Your task to perform on an android device: Open settings on Google Maps Image 0: 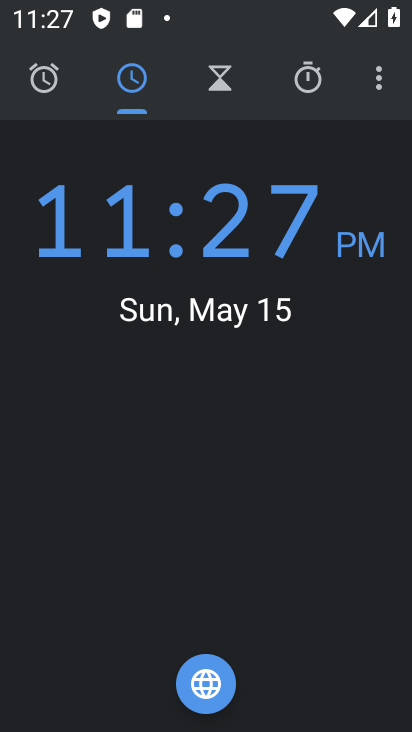
Step 0: press home button
Your task to perform on an android device: Open settings on Google Maps Image 1: 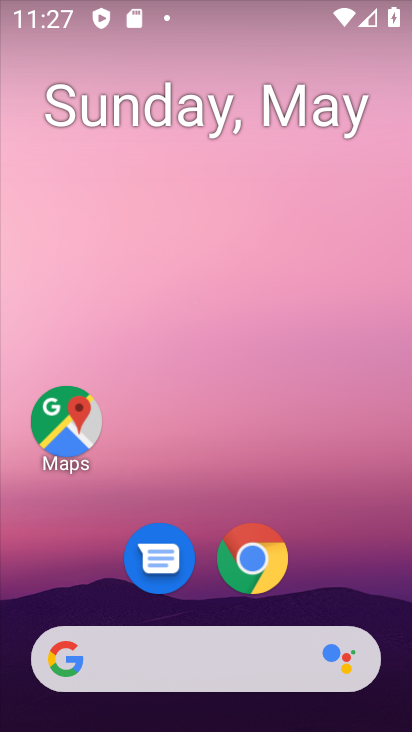
Step 1: drag from (378, 603) to (375, 188)
Your task to perform on an android device: Open settings on Google Maps Image 2: 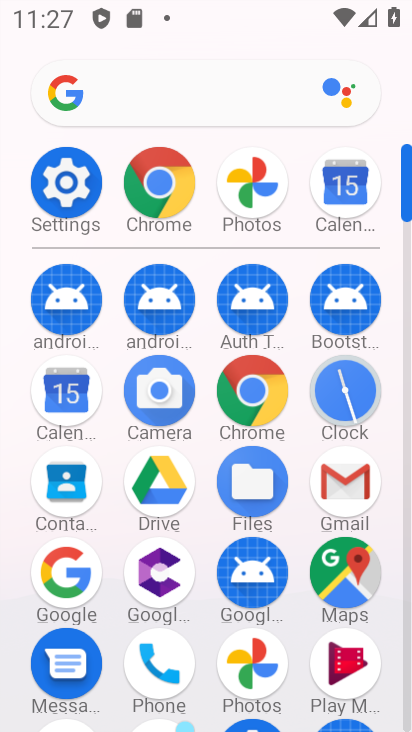
Step 2: click (363, 571)
Your task to perform on an android device: Open settings on Google Maps Image 3: 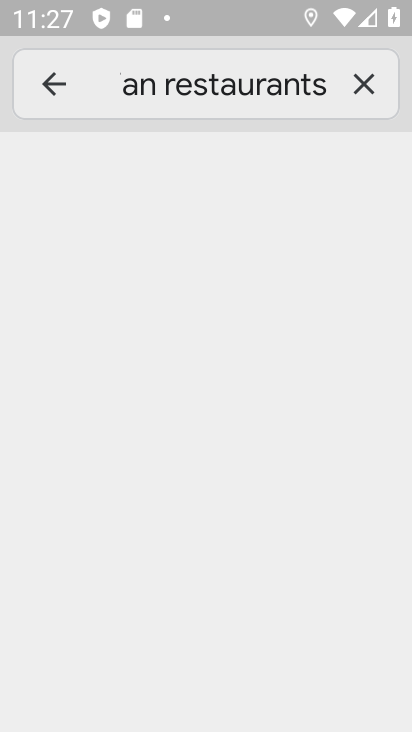
Step 3: click (41, 72)
Your task to perform on an android device: Open settings on Google Maps Image 4: 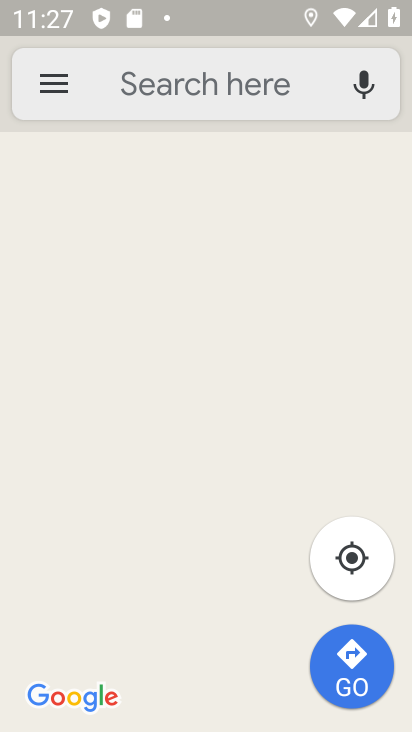
Step 4: click (61, 70)
Your task to perform on an android device: Open settings on Google Maps Image 5: 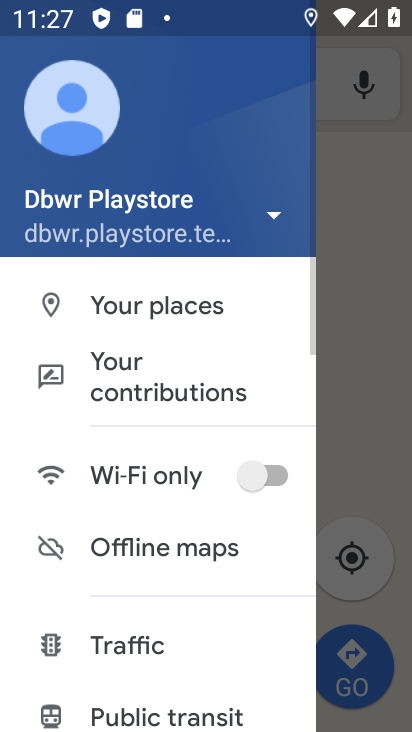
Step 5: drag from (219, 581) to (219, 380)
Your task to perform on an android device: Open settings on Google Maps Image 6: 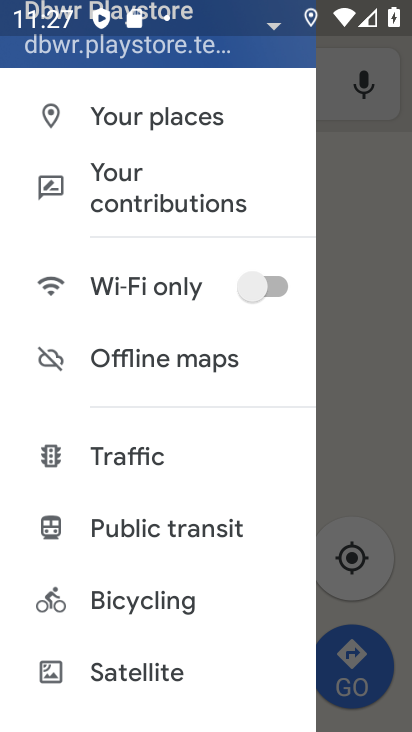
Step 6: drag from (227, 663) to (228, 450)
Your task to perform on an android device: Open settings on Google Maps Image 7: 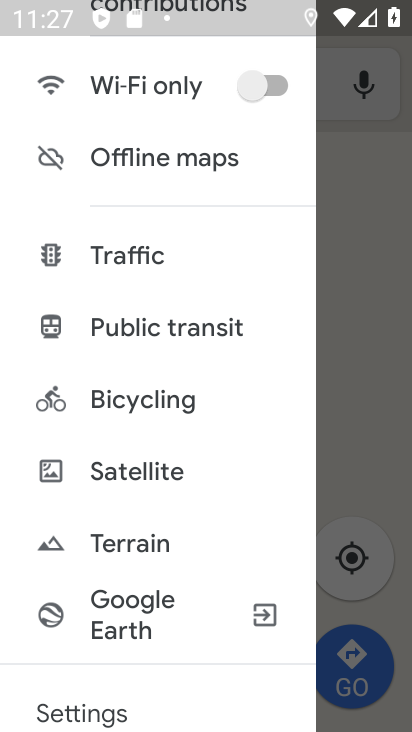
Step 7: drag from (200, 605) to (200, 402)
Your task to perform on an android device: Open settings on Google Maps Image 8: 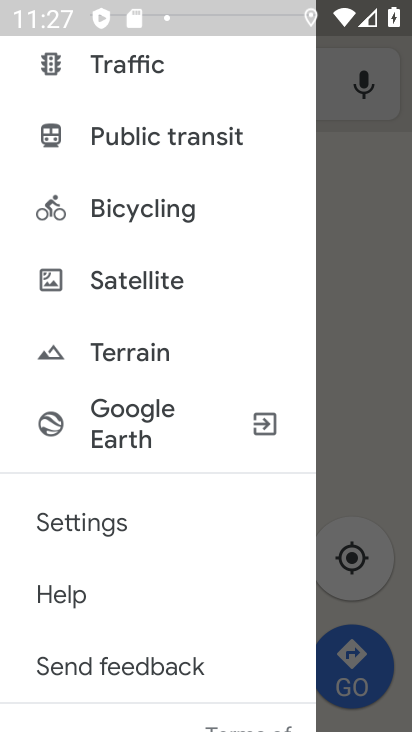
Step 8: click (99, 523)
Your task to perform on an android device: Open settings on Google Maps Image 9: 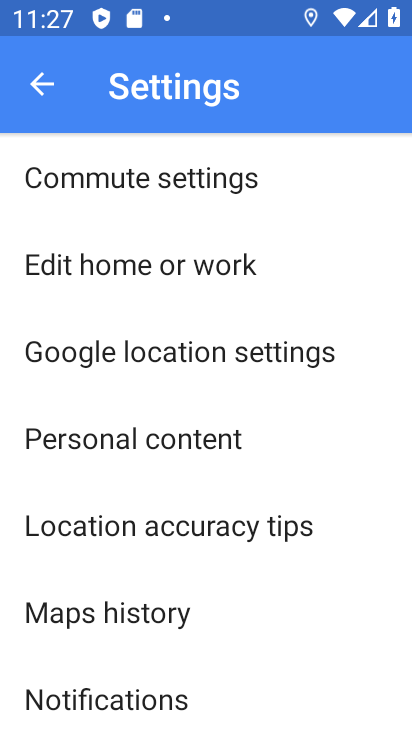
Step 9: task complete